Your task to perform on an android device: Do I have any events today? Image 0: 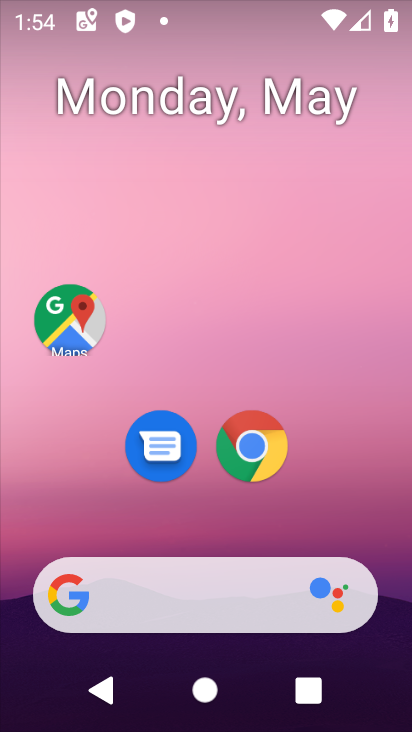
Step 0: drag from (243, 577) to (274, 147)
Your task to perform on an android device: Do I have any events today? Image 1: 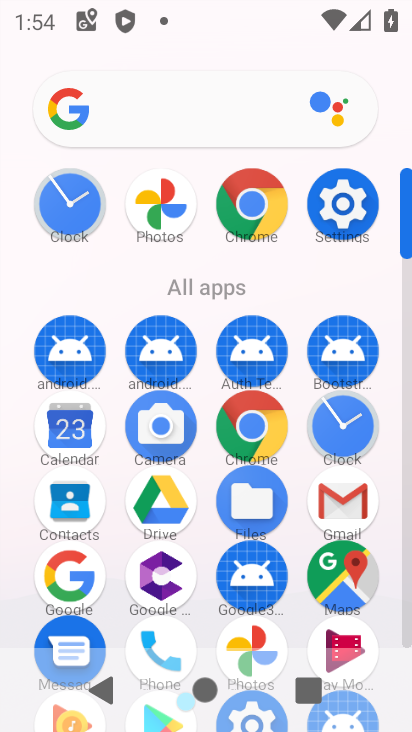
Step 1: click (68, 447)
Your task to perform on an android device: Do I have any events today? Image 2: 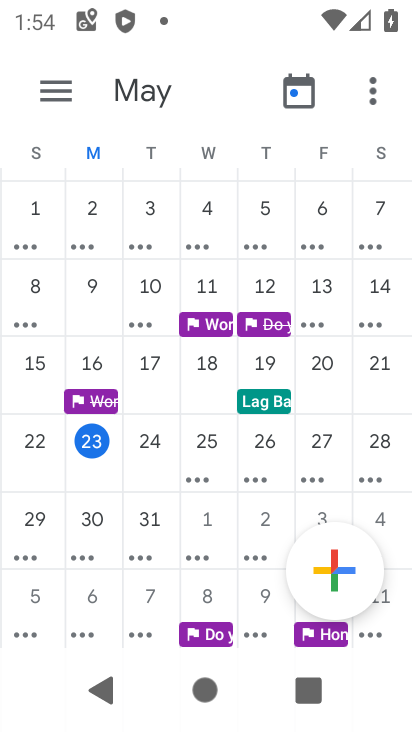
Step 2: click (58, 90)
Your task to perform on an android device: Do I have any events today? Image 3: 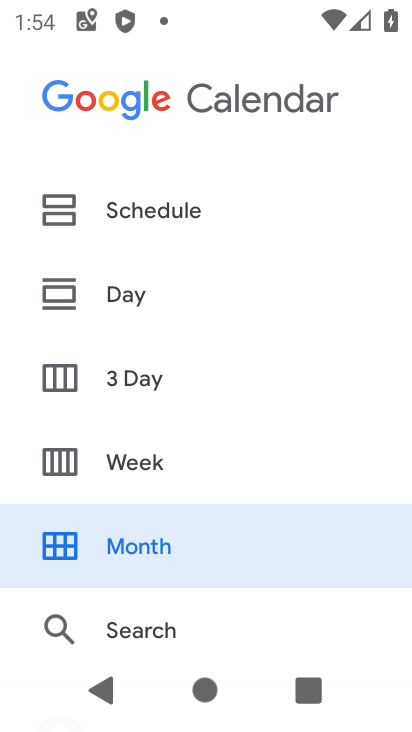
Step 3: click (155, 209)
Your task to perform on an android device: Do I have any events today? Image 4: 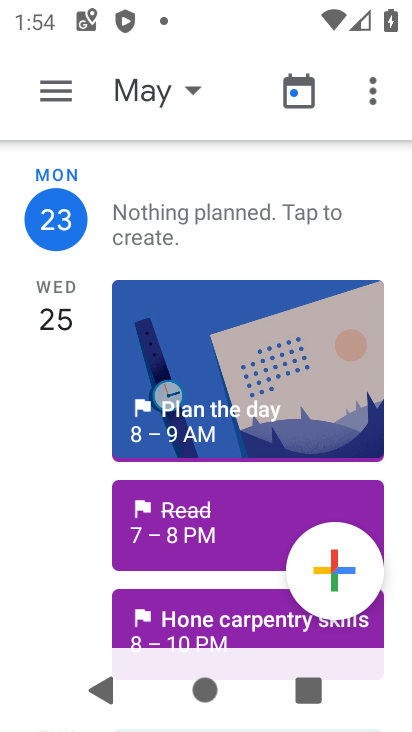
Step 4: task complete